Your task to perform on an android device: Go to Maps Image 0: 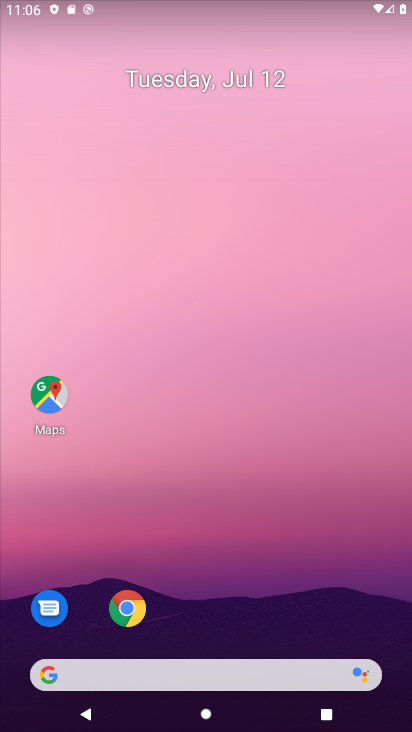
Step 0: drag from (244, 698) to (231, 168)
Your task to perform on an android device: Go to Maps Image 1: 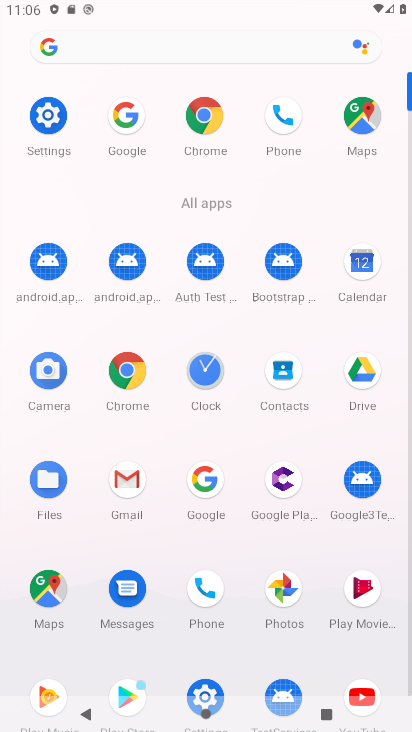
Step 1: click (48, 591)
Your task to perform on an android device: Go to Maps Image 2: 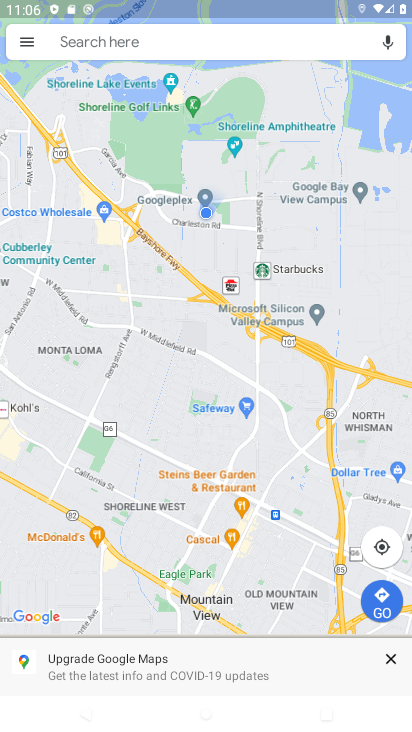
Step 2: task complete